Your task to perform on an android device: turn pop-ups on in chrome Image 0: 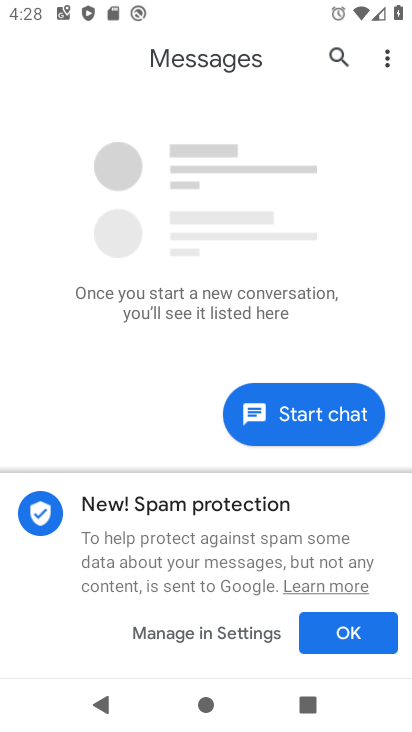
Step 0: press home button
Your task to perform on an android device: turn pop-ups on in chrome Image 1: 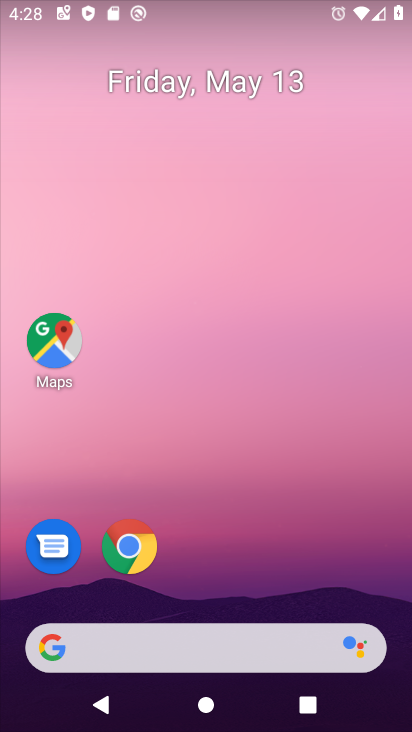
Step 1: drag from (223, 552) to (386, 408)
Your task to perform on an android device: turn pop-ups on in chrome Image 2: 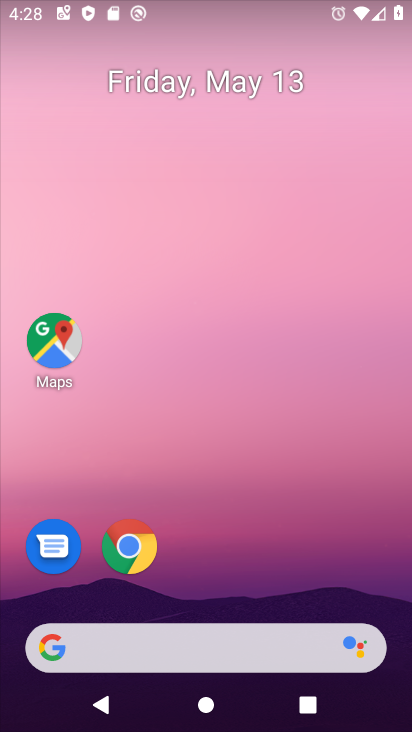
Step 2: drag from (205, 606) to (249, 47)
Your task to perform on an android device: turn pop-ups on in chrome Image 3: 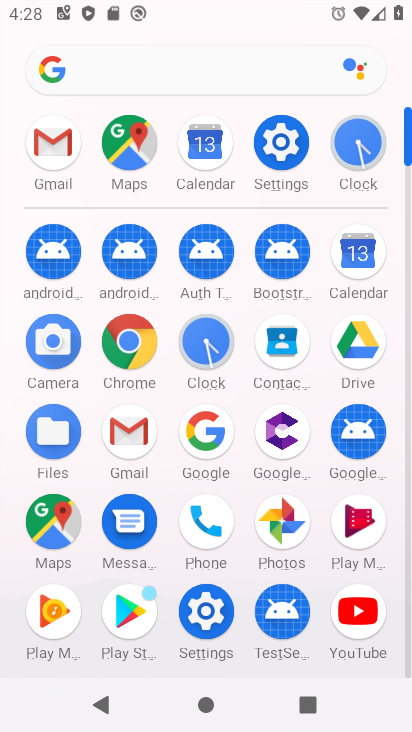
Step 3: click (216, 618)
Your task to perform on an android device: turn pop-ups on in chrome Image 4: 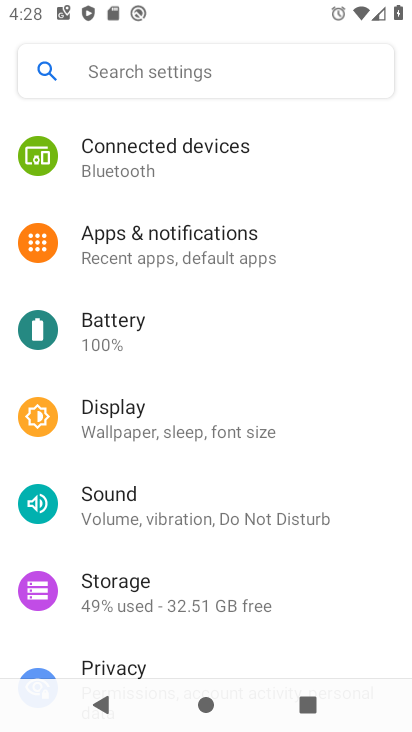
Step 4: press home button
Your task to perform on an android device: turn pop-ups on in chrome Image 5: 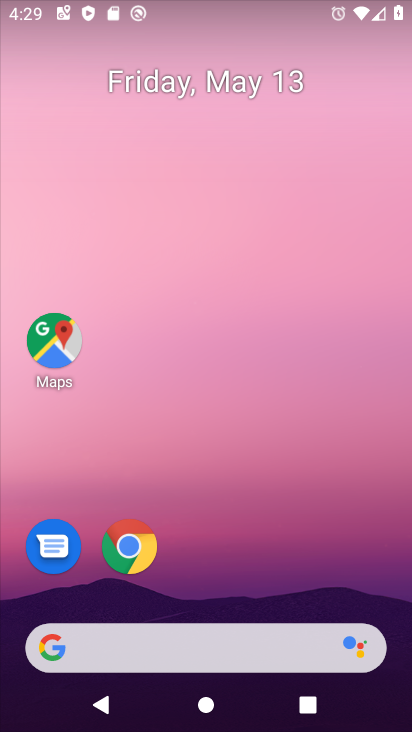
Step 5: click (141, 548)
Your task to perform on an android device: turn pop-ups on in chrome Image 6: 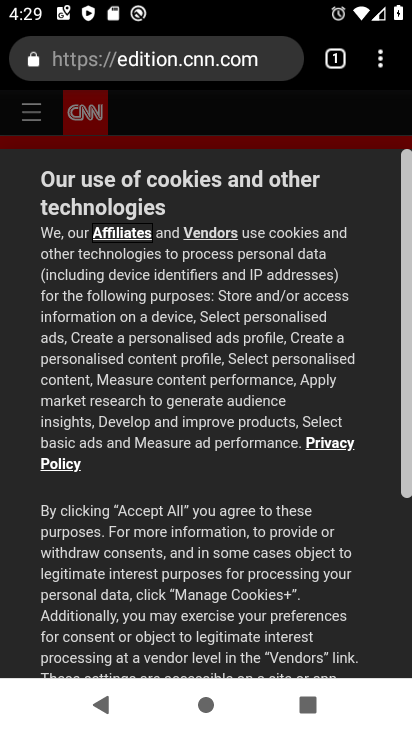
Step 6: click (382, 57)
Your task to perform on an android device: turn pop-ups on in chrome Image 7: 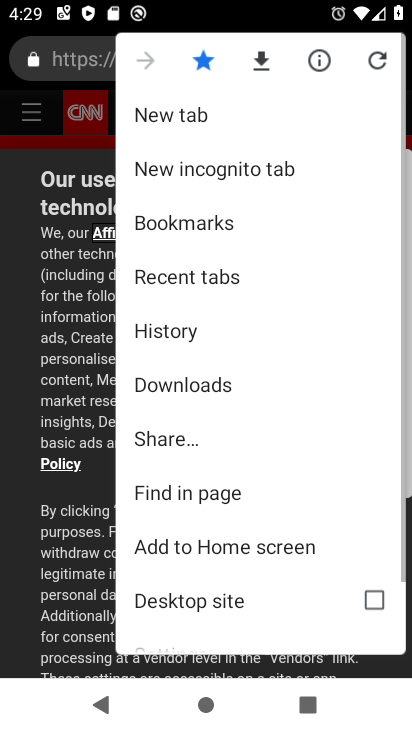
Step 7: drag from (195, 564) to (268, 255)
Your task to perform on an android device: turn pop-ups on in chrome Image 8: 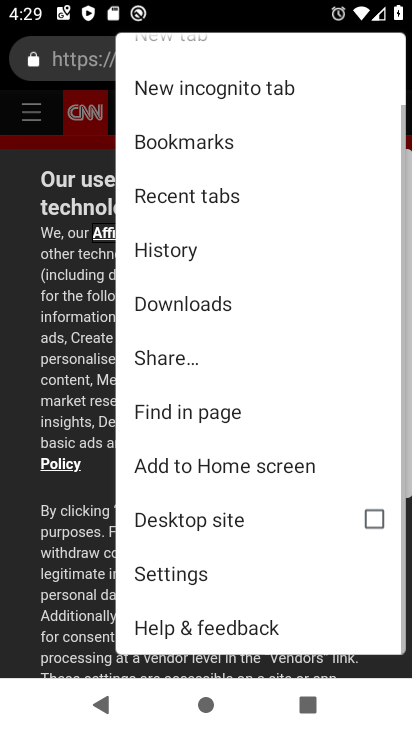
Step 8: click (175, 576)
Your task to perform on an android device: turn pop-ups on in chrome Image 9: 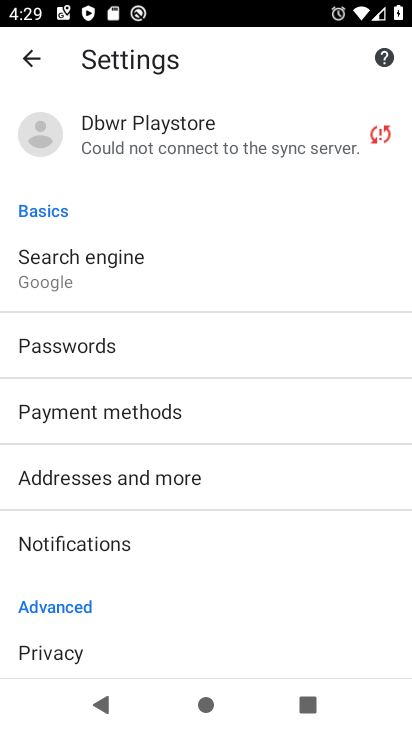
Step 9: drag from (151, 548) to (257, 188)
Your task to perform on an android device: turn pop-ups on in chrome Image 10: 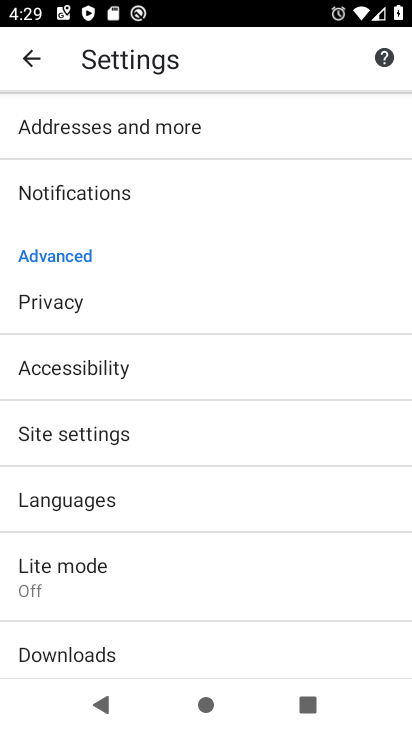
Step 10: click (132, 448)
Your task to perform on an android device: turn pop-ups on in chrome Image 11: 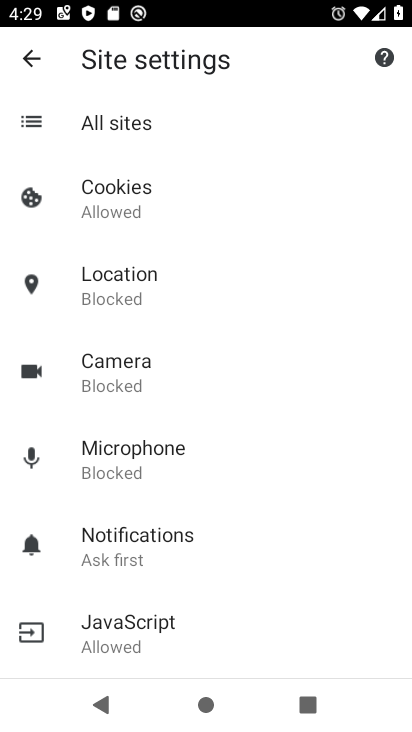
Step 11: drag from (124, 601) to (207, 249)
Your task to perform on an android device: turn pop-ups on in chrome Image 12: 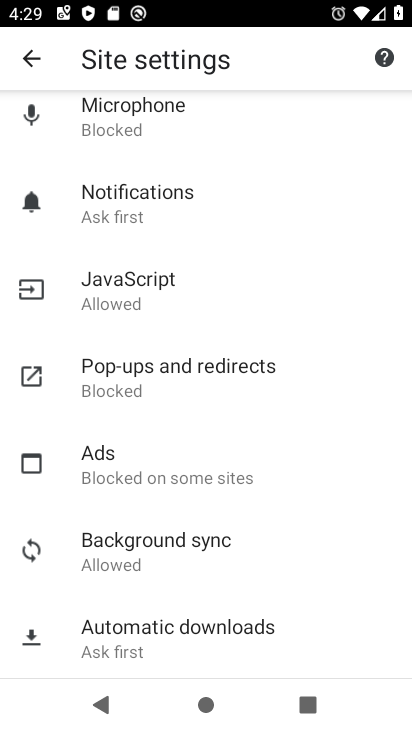
Step 12: click (178, 378)
Your task to perform on an android device: turn pop-ups on in chrome Image 13: 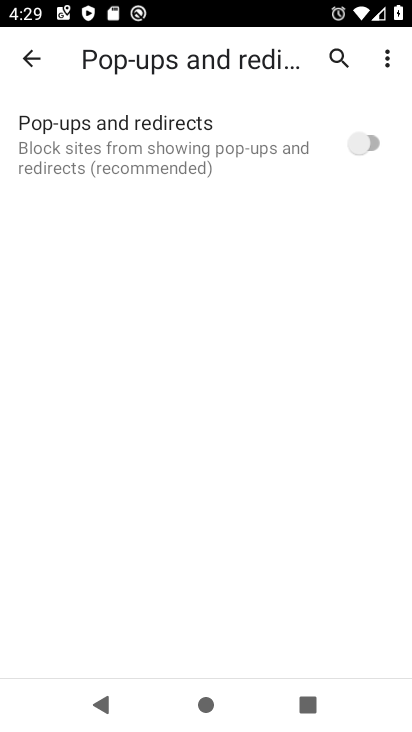
Step 13: click (357, 140)
Your task to perform on an android device: turn pop-ups on in chrome Image 14: 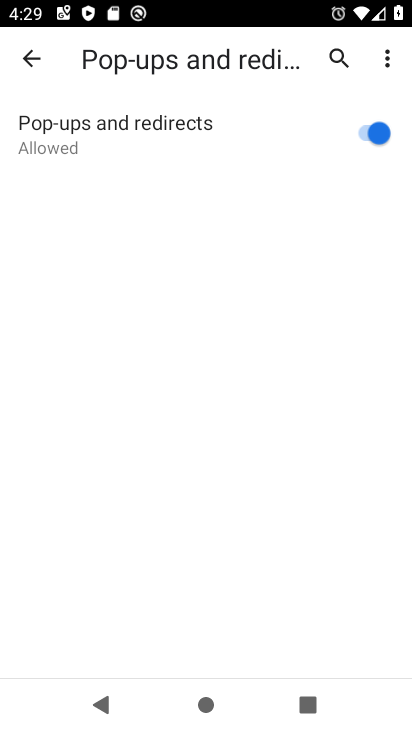
Step 14: task complete